Your task to perform on an android device: open sync settings in chrome Image 0: 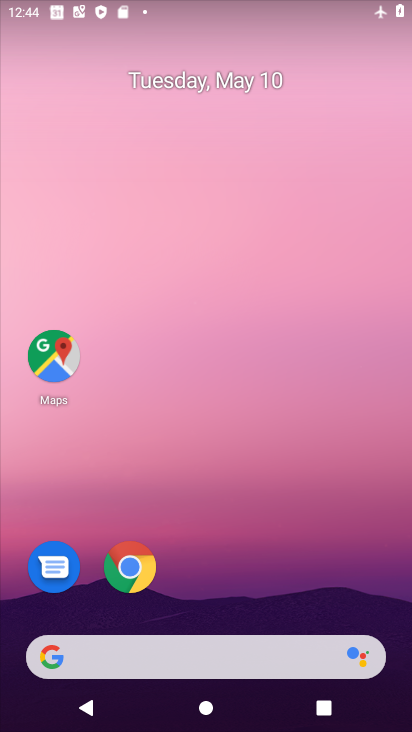
Step 0: drag from (382, 618) to (297, 164)
Your task to perform on an android device: open sync settings in chrome Image 1: 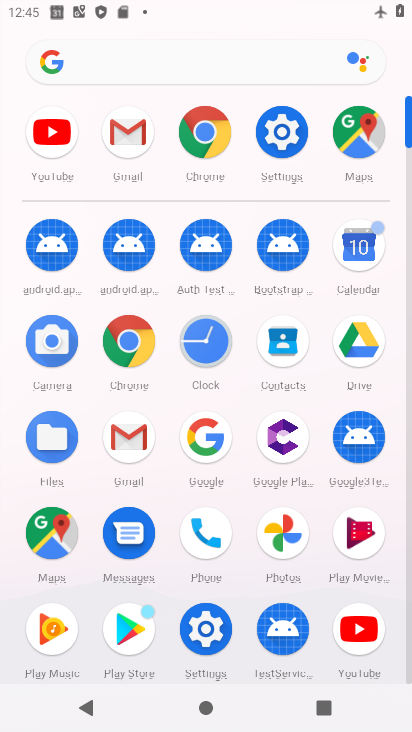
Step 1: click (204, 642)
Your task to perform on an android device: open sync settings in chrome Image 2: 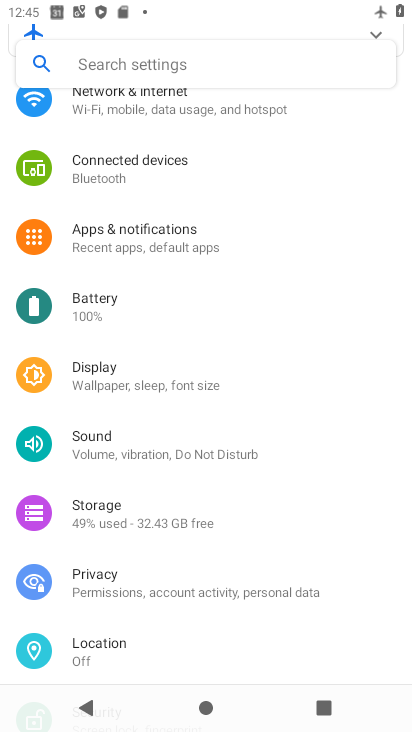
Step 2: press home button
Your task to perform on an android device: open sync settings in chrome Image 3: 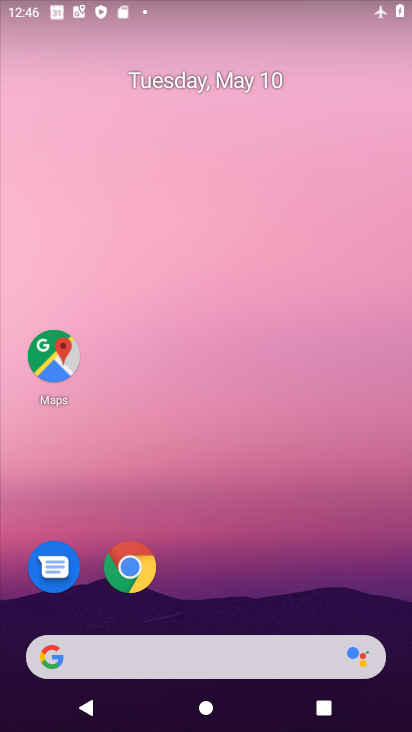
Step 3: click (136, 571)
Your task to perform on an android device: open sync settings in chrome Image 4: 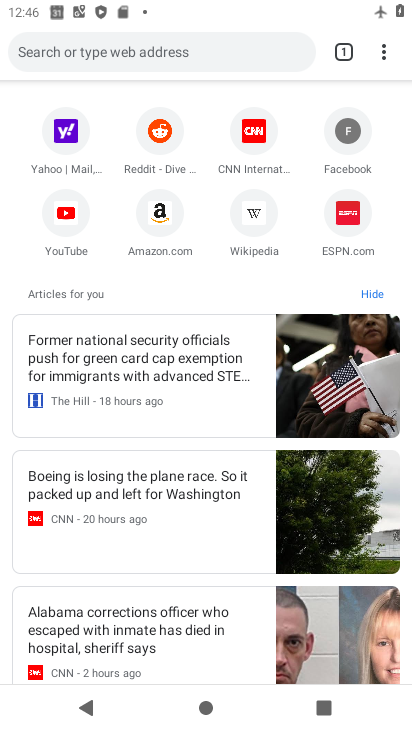
Step 4: click (392, 42)
Your task to perform on an android device: open sync settings in chrome Image 5: 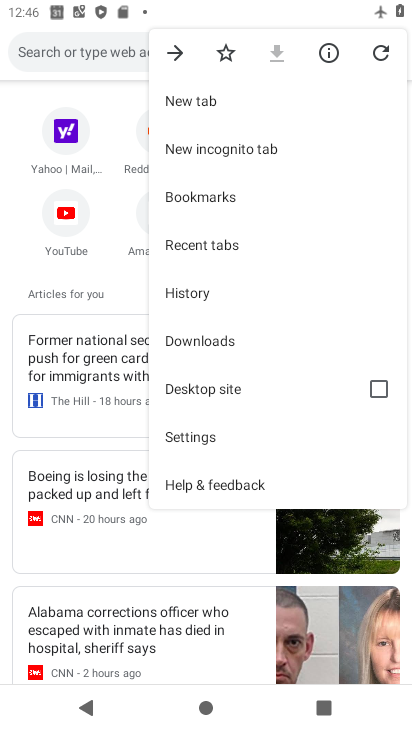
Step 5: click (197, 447)
Your task to perform on an android device: open sync settings in chrome Image 6: 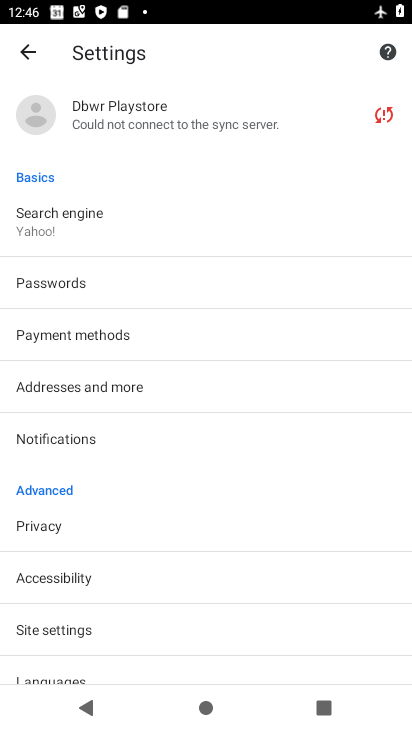
Step 6: click (109, 634)
Your task to perform on an android device: open sync settings in chrome Image 7: 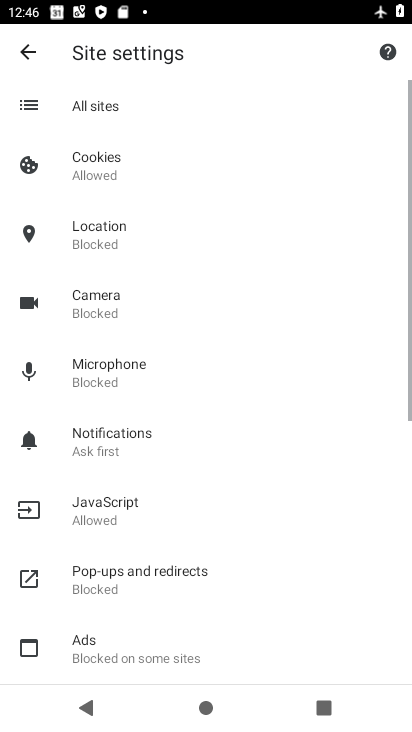
Step 7: drag from (109, 634) to (233, 251)
Your task to perform on an android device: open sync settings in chrome Image 8: 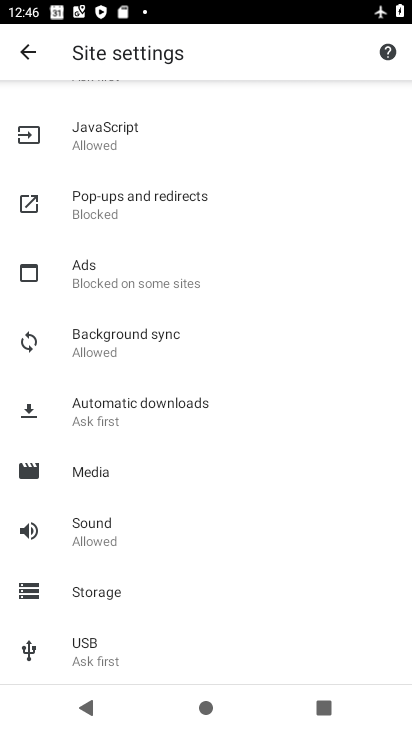
Step 8: click (154, 349)
Your task to perform on an android device: open sync settings in chrome Image 9: 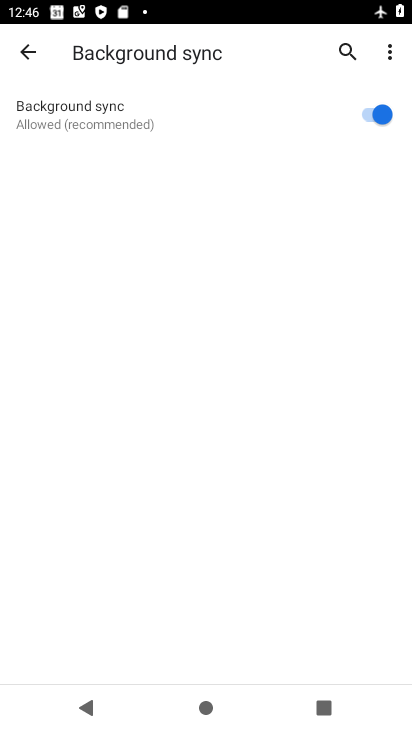
Step 9: task complete